Your task to perform on an android device: View the shopping cart on target.com. Add "logitech g502" to the cart on target.com, then select checkout. Image 0: 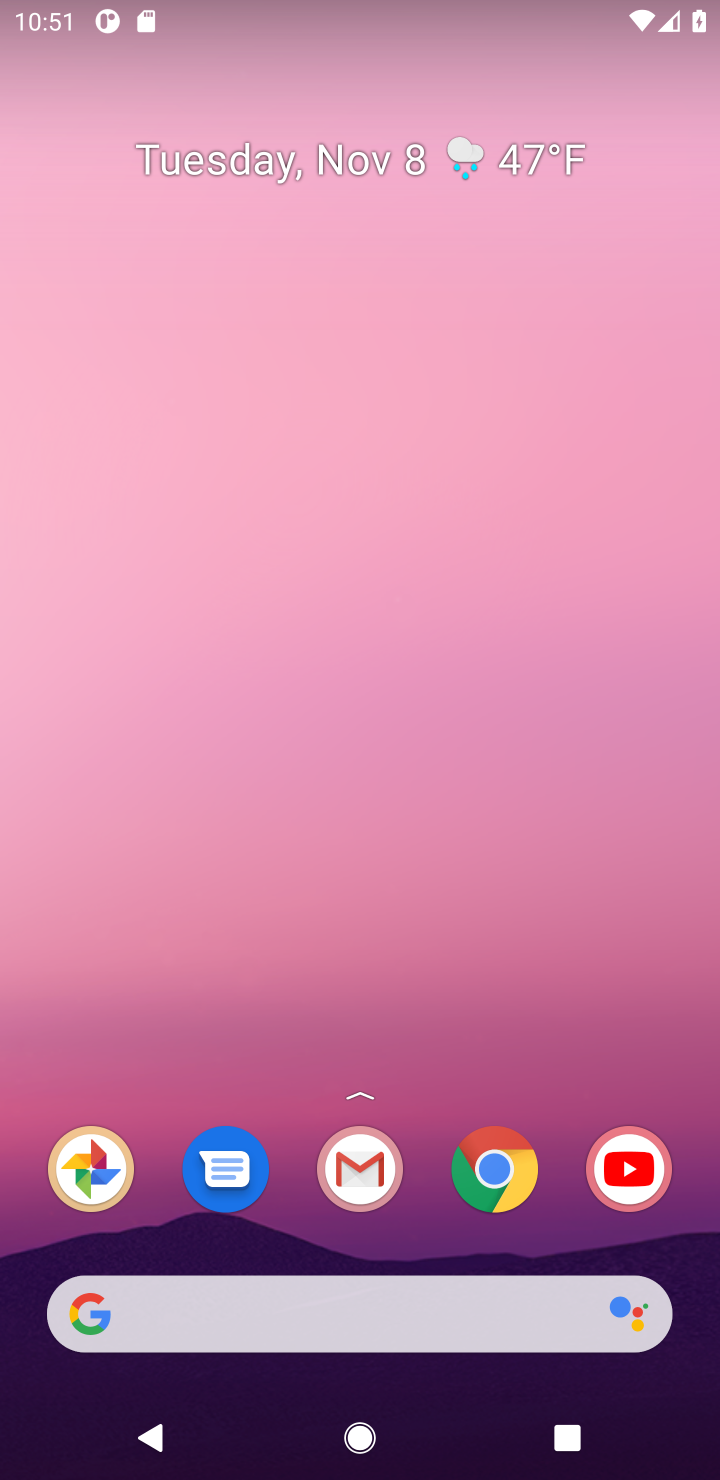
Step 0: click (511, 1176)
Your task to perform on an android device: View the shopping cart on target.com. Add "logitech g502" to the cart on target.com, then select checkout. Image 1: 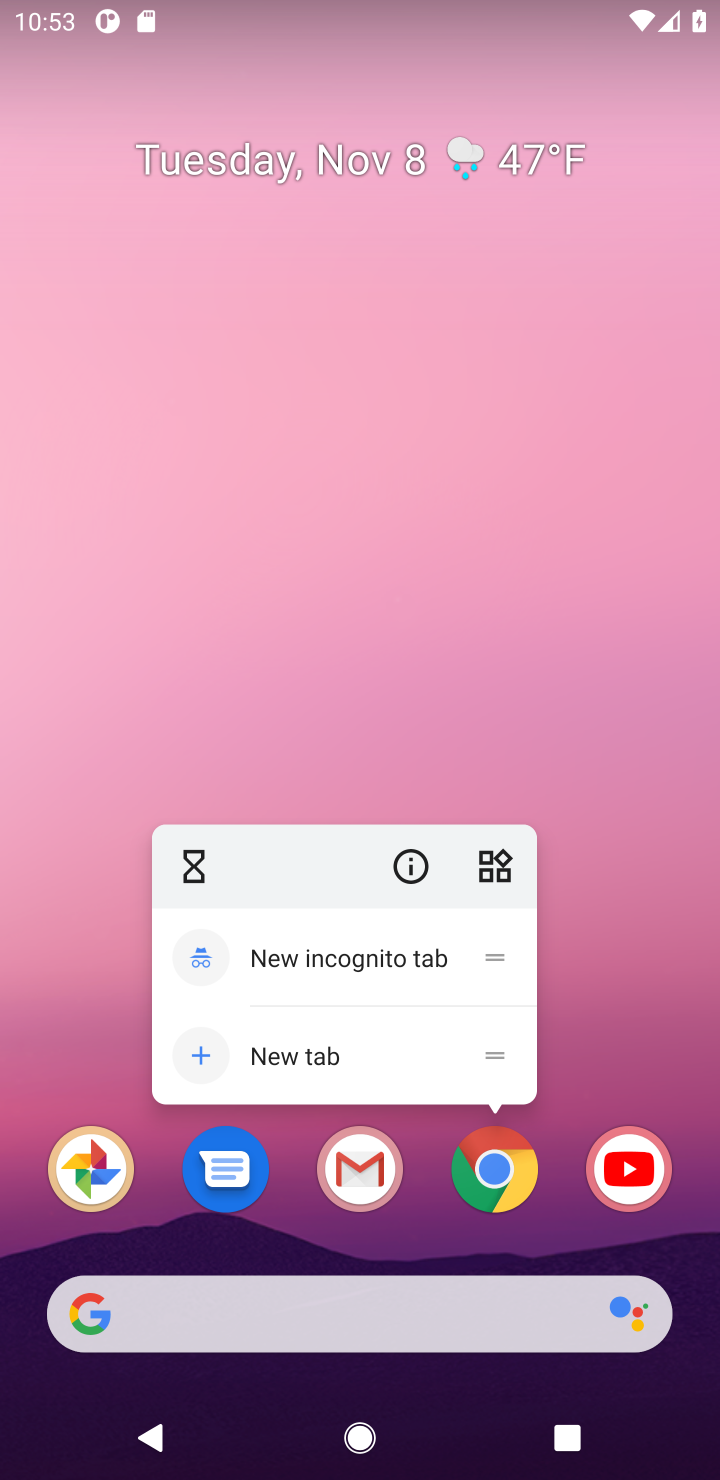
Step 1: click (511, 1176)
Your task to perform on an android device: View the shopping cart on target.com. Add "logitech g502" to the cart on target.com, then select checkout. Image 2: 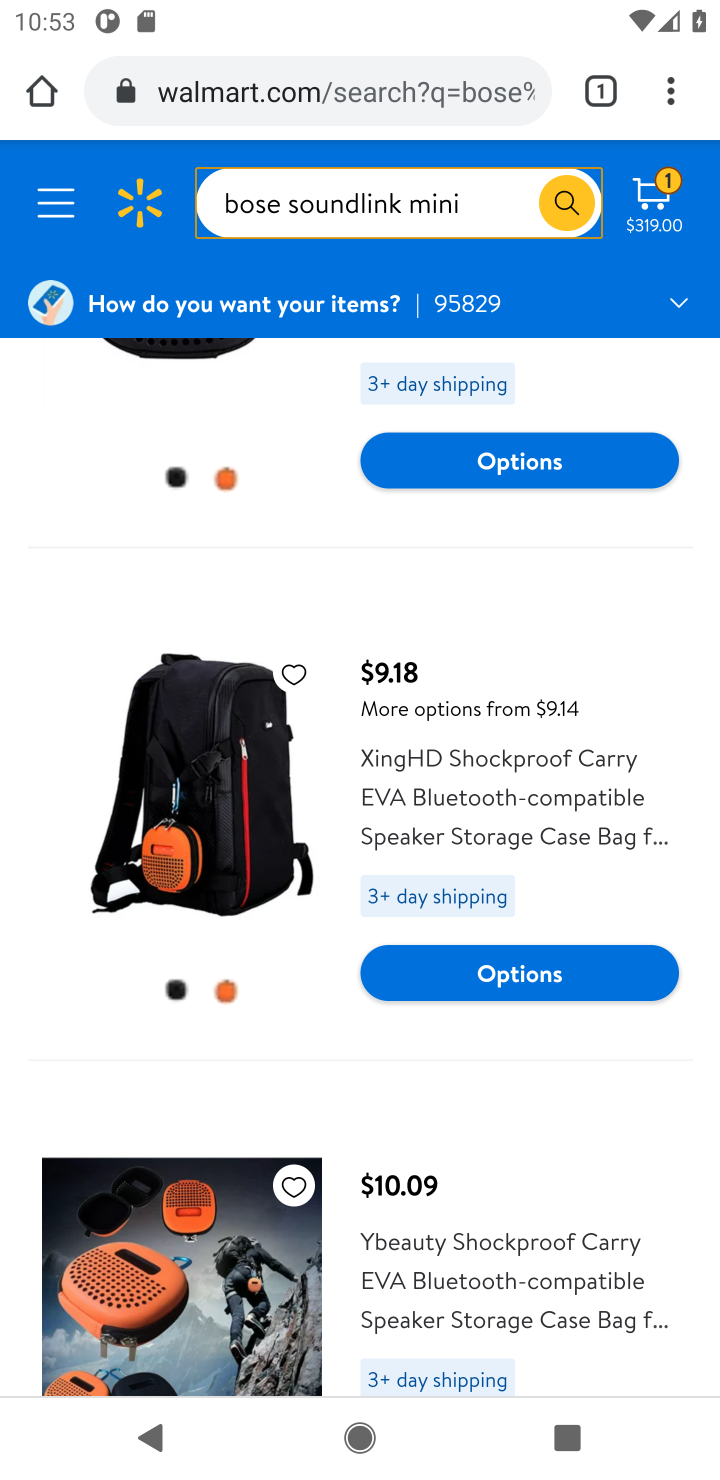
Step 2: click (363, 79)
Your task to perform on an android device: View the shopping cart on target.com. Add "logitech g502" to the cart on target.com, then select checkout. Image 3: 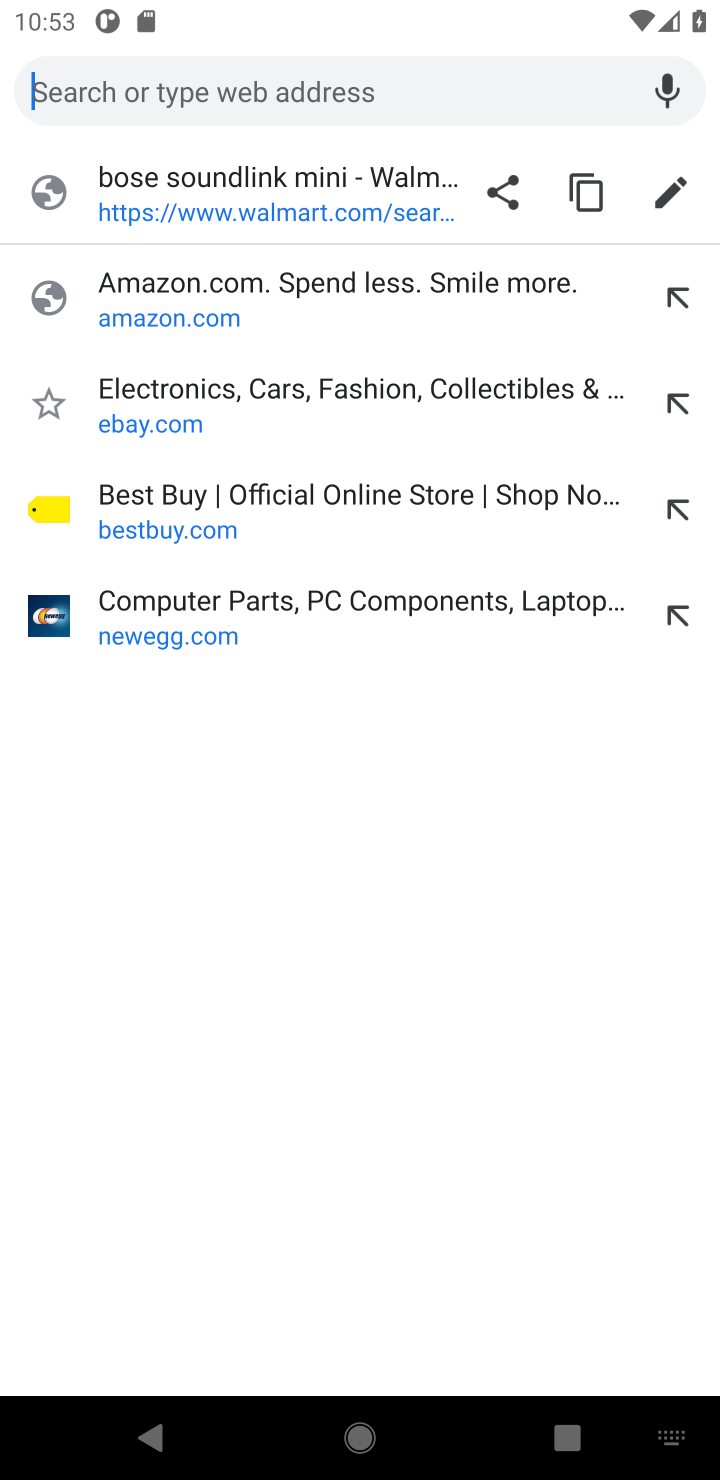
Step 3: type "target.com"
Your task to perform on an android device: View the shopping cart on target.com. Add "logitech g502" to the cart on target.com, then select checkout. Image 4: 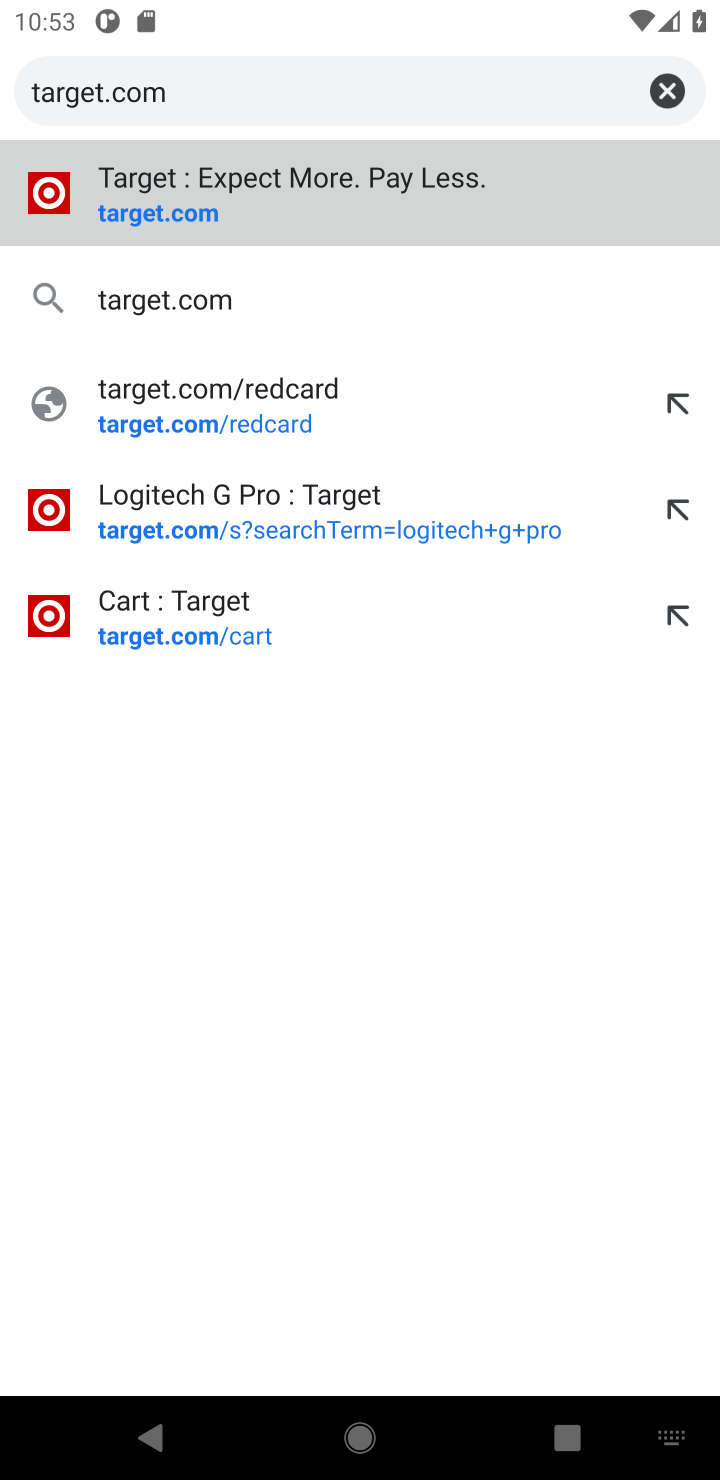
Step 4: click (189, 293)
Your task to perform on an android device: View the shopping cart on target.com. Add "logitech g502" to the cart on target.com, then select checkout. Image 5: 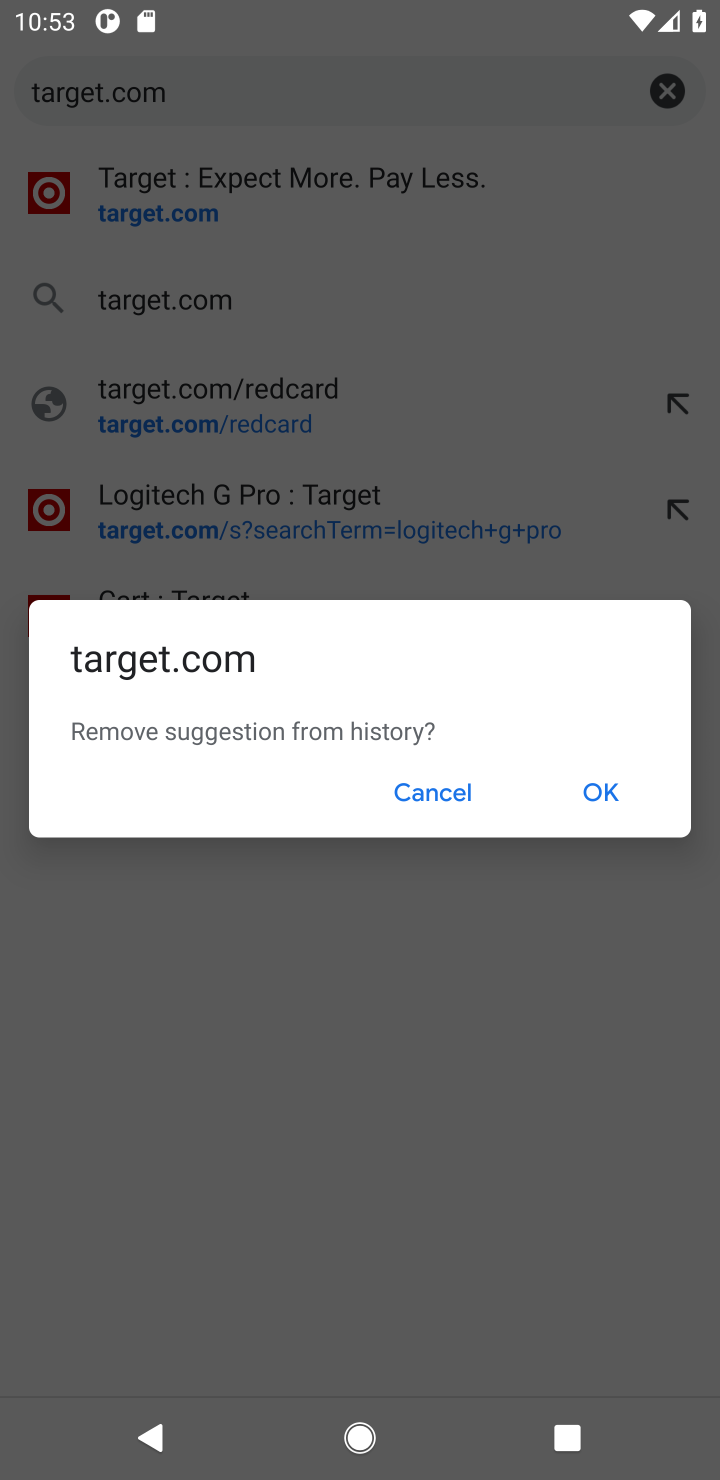
Step 5: click (629, 783)
Your task to perform on an android device: View the shopping cart on target.com. Add "logitech g502" to the cart on target.com, then select checkout. Image 6: 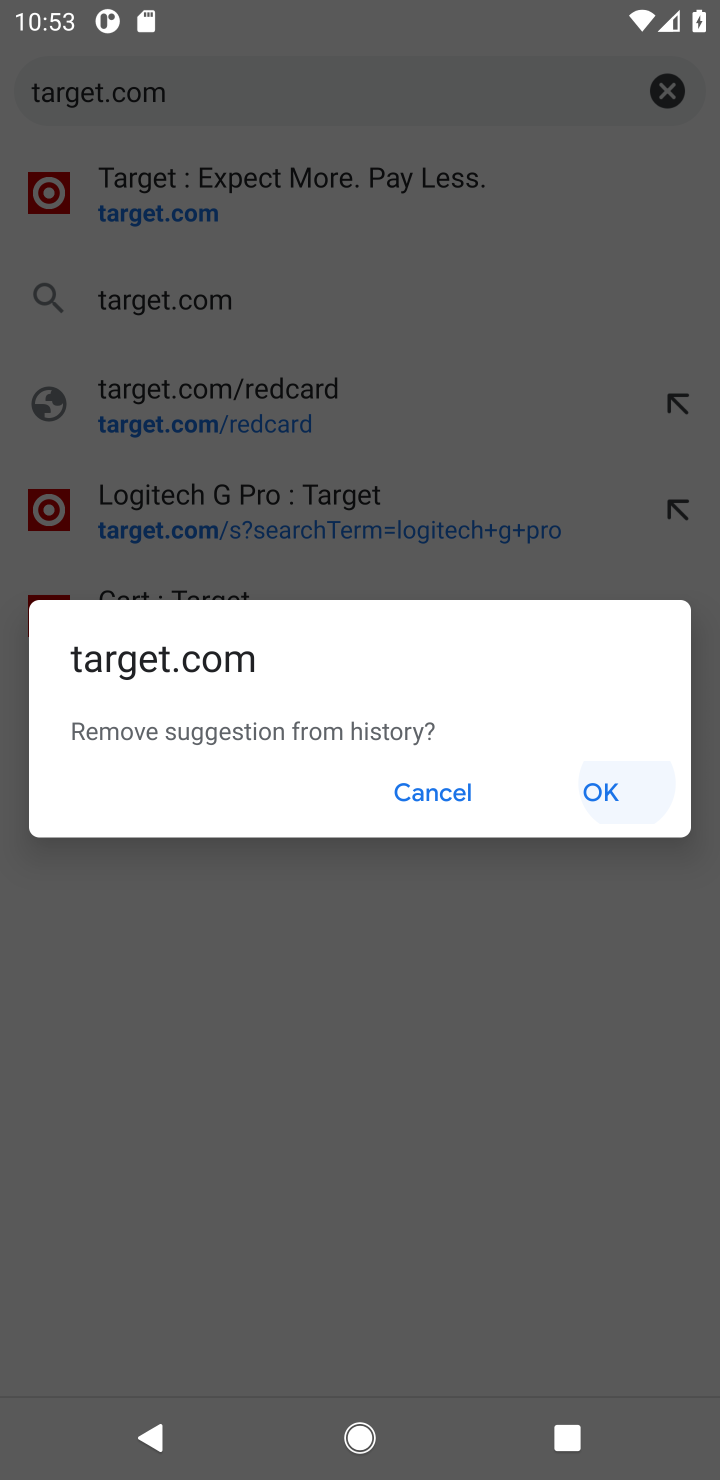
Step 6: click (608, 789)
Your task to perform on an android device: View the shopping cart on target.com. Add "logitech g502" to the cart on target.com, then select checkout. Image 7: 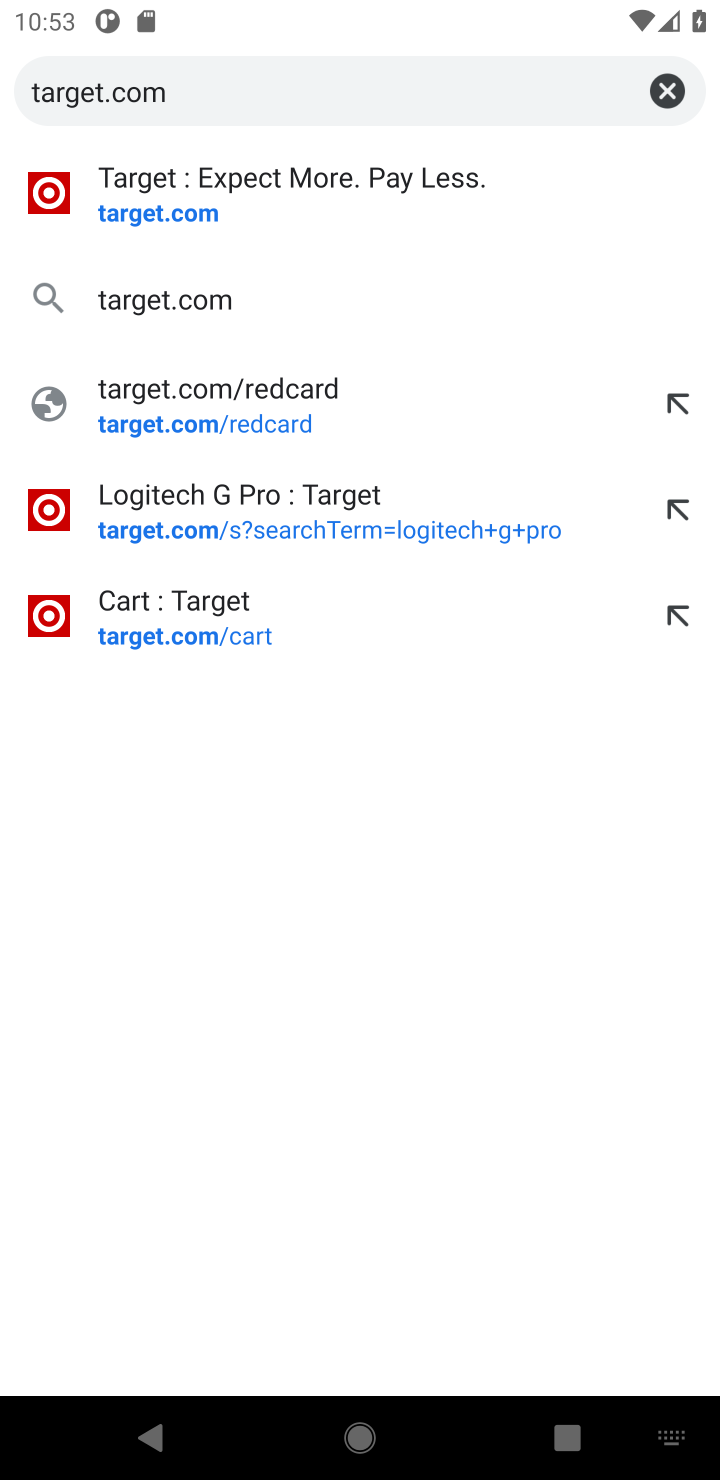
Step 7: click (454, 79)
Your task to perform on an android device: View the shopping cart on target.com. Add "logitech g502" to the cart on target.com, then select checkout. Image 8: 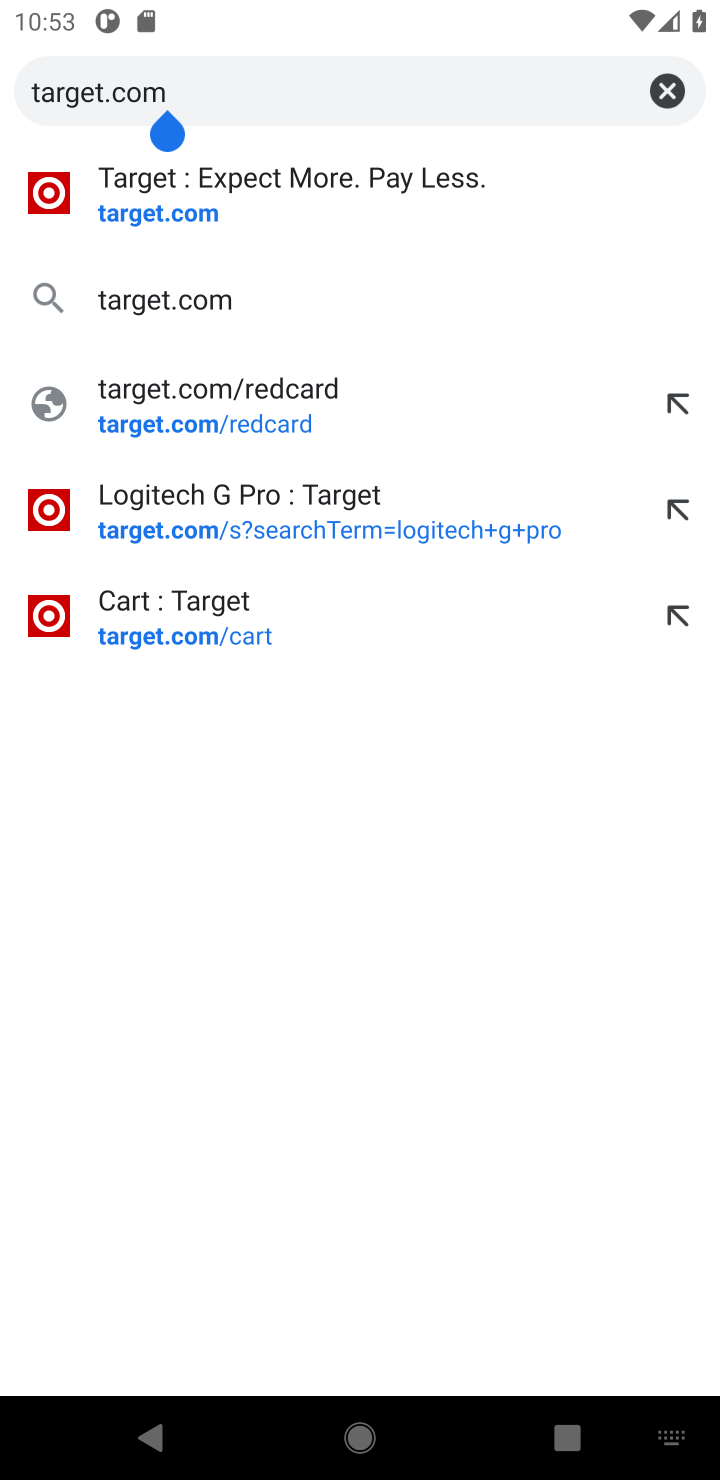
Step 8: click (166, 306)
Your task to perform on an android device: View the shopping cart on target.com. Add "logitech g502" to the cart on target.com, then select checkout. Image 9: 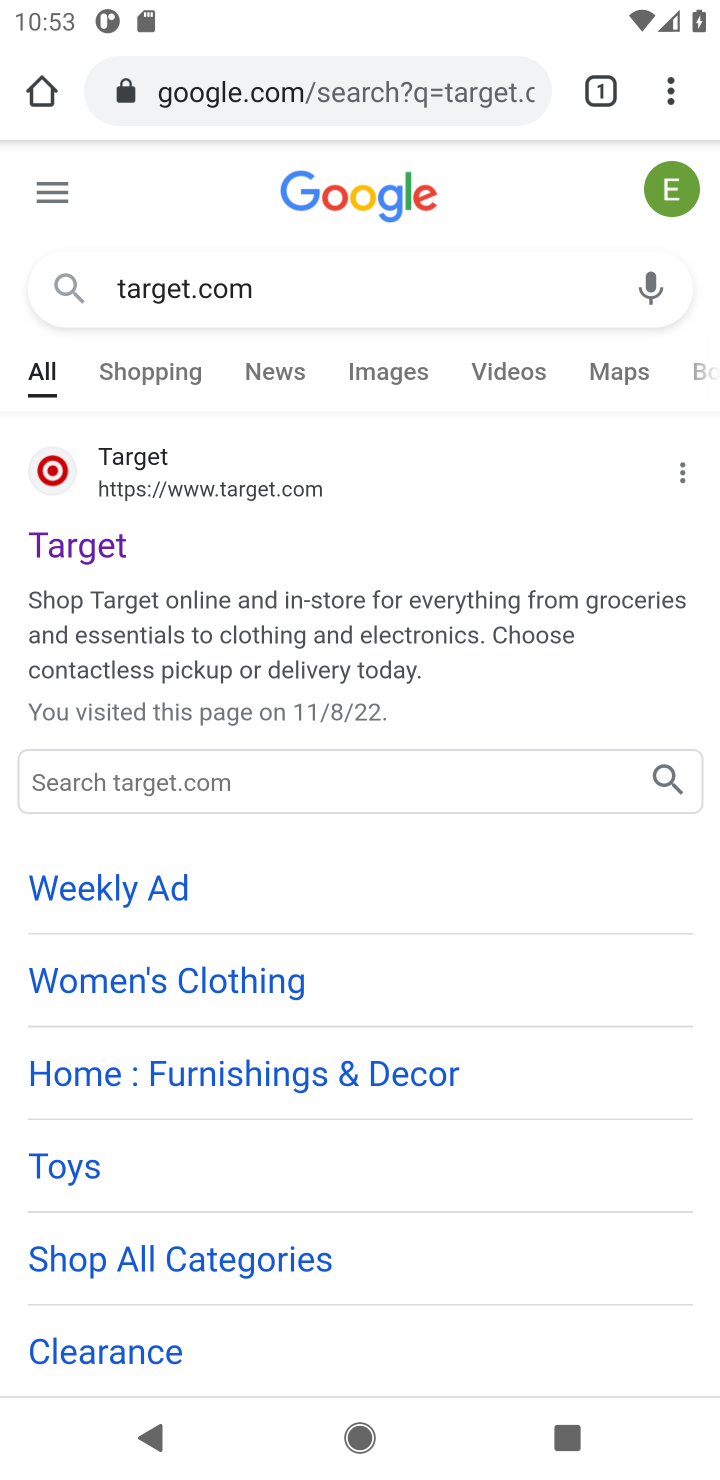
Step 9: click (219, 485)
Your task to perform on an android device: View the shopping cart on target.com. Add "logitech g502" to the cart on target.com, then select checkout. Image 10: 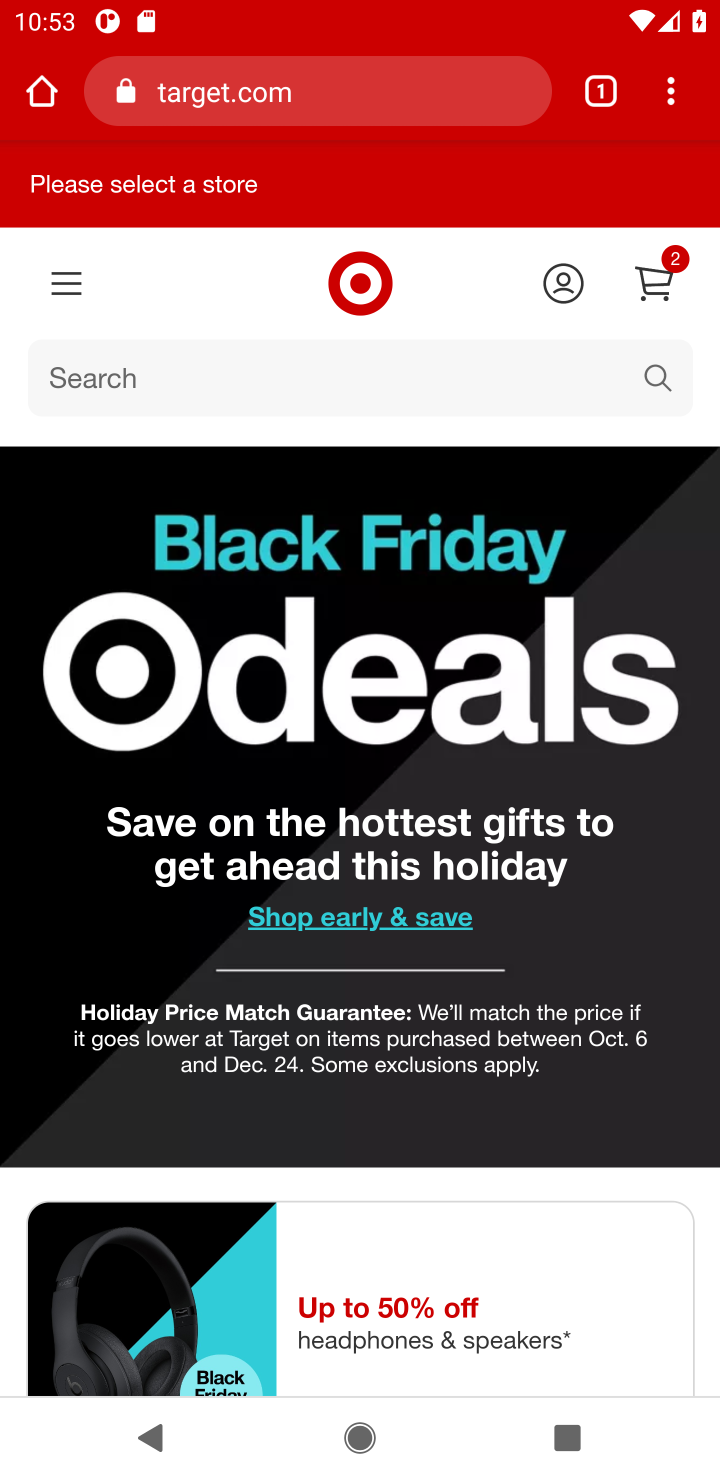
Step 10: click (657, 370)
Your task to perform on an android device: View the shopping cart on target.com. Add "logitech g502" to the cart on target.com, then select checkout. Image 11: 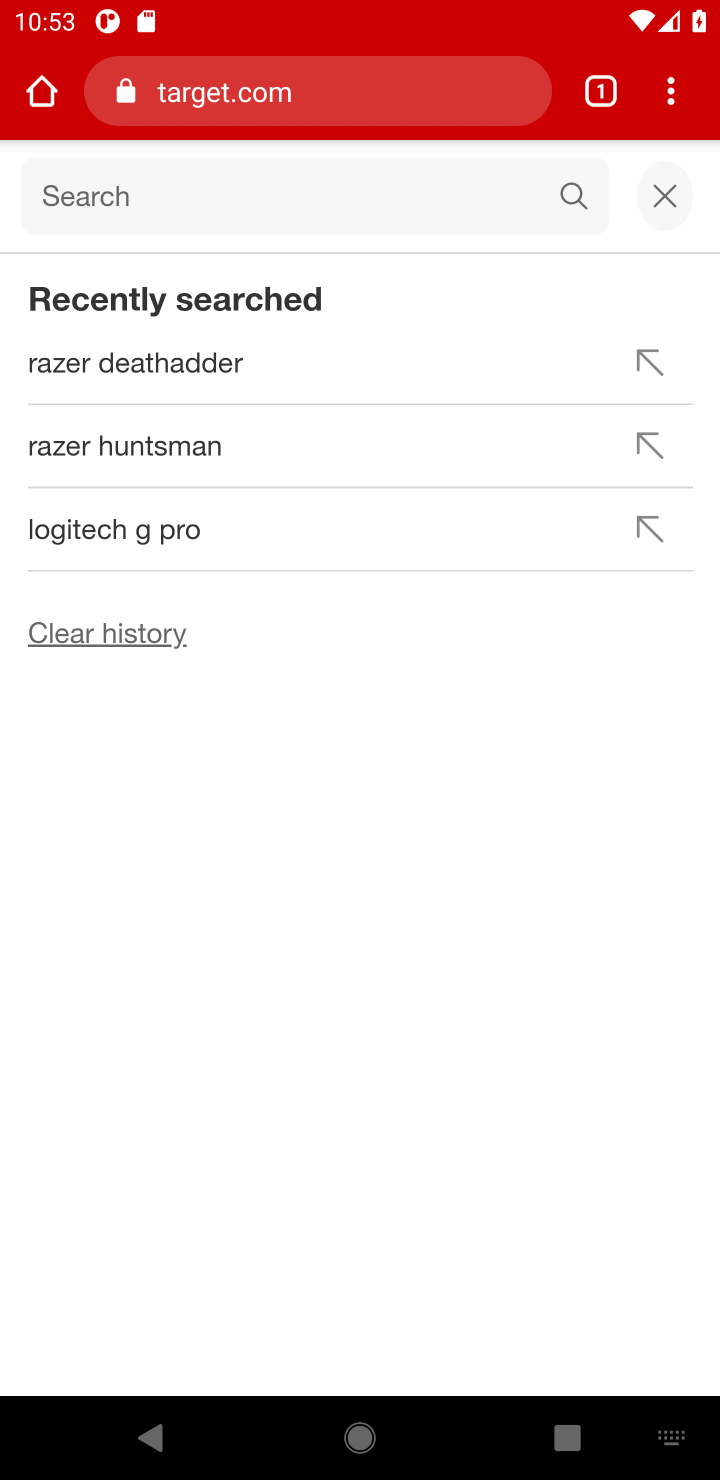
Step 11: type "logitech g502"
Your task to perform on an android device: View the shopping cart on target.com. Add "logitech g502" to the cart on target.com, then select checkout. Image 12: 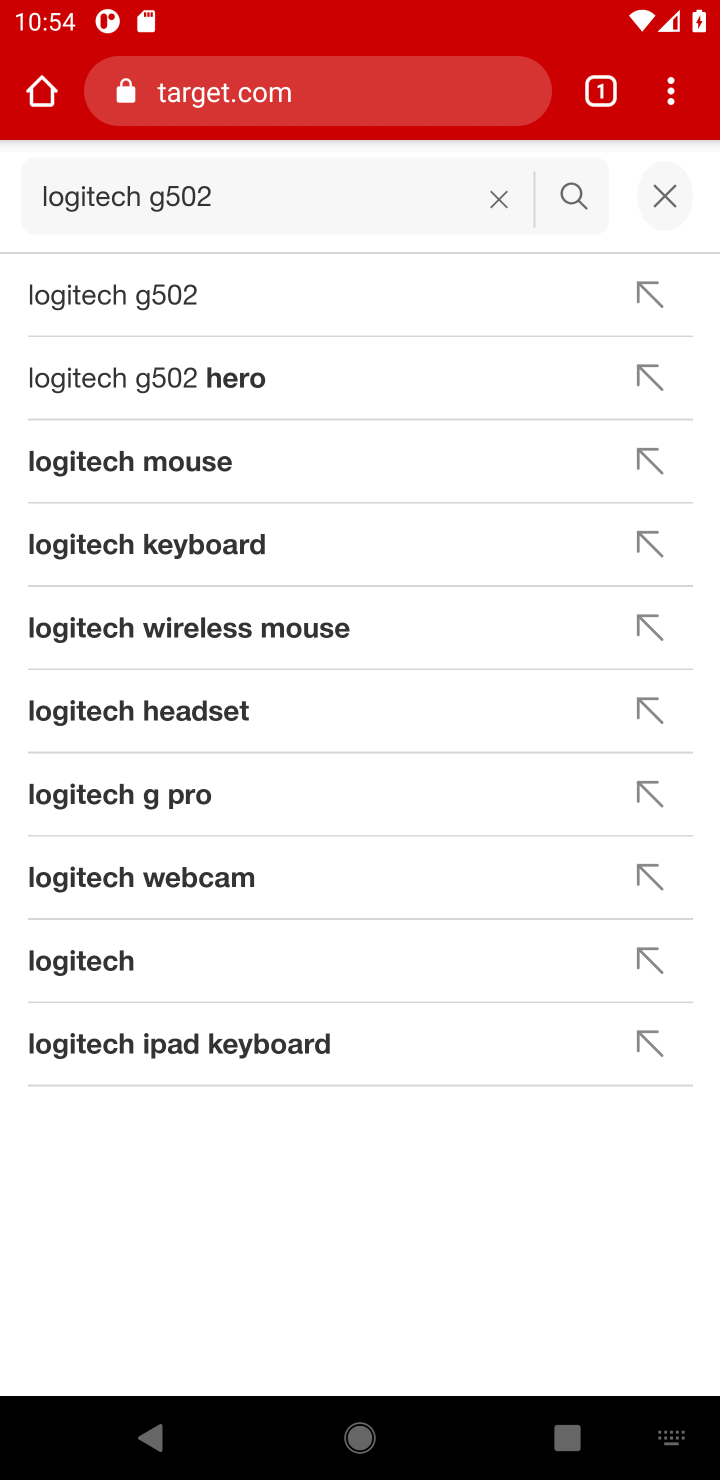
Step 12: click (103, 299)
Your task to perform on an android device: View the shopping cart on target.com. Add "logitech g502" to the cart on target.com, then select checkout. Image 13: 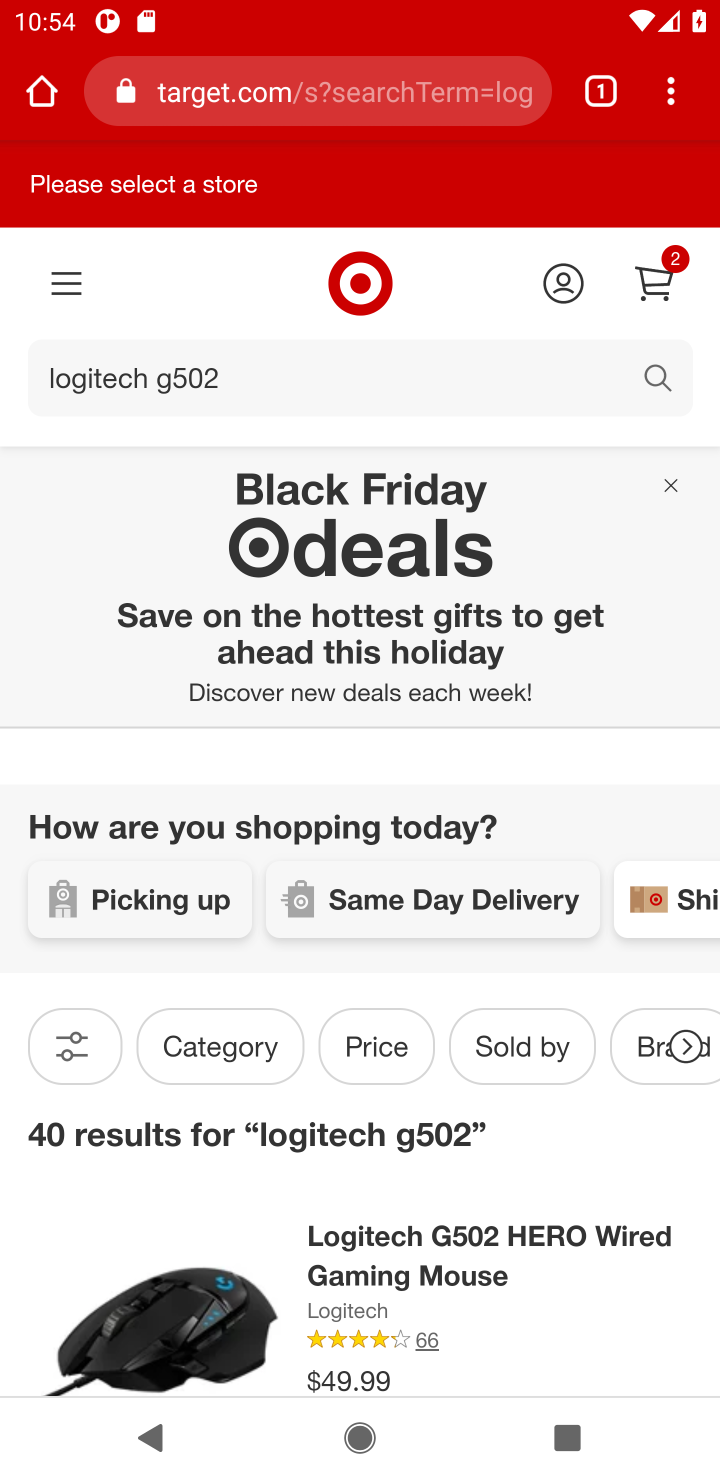
Step 13: drag from (619, 1285) to (656, 1012)
Your task to perform on an android device: View the shopping cart on target.com. Add "logitech g502" to the cart on target.com, then select checkout. Image 14: 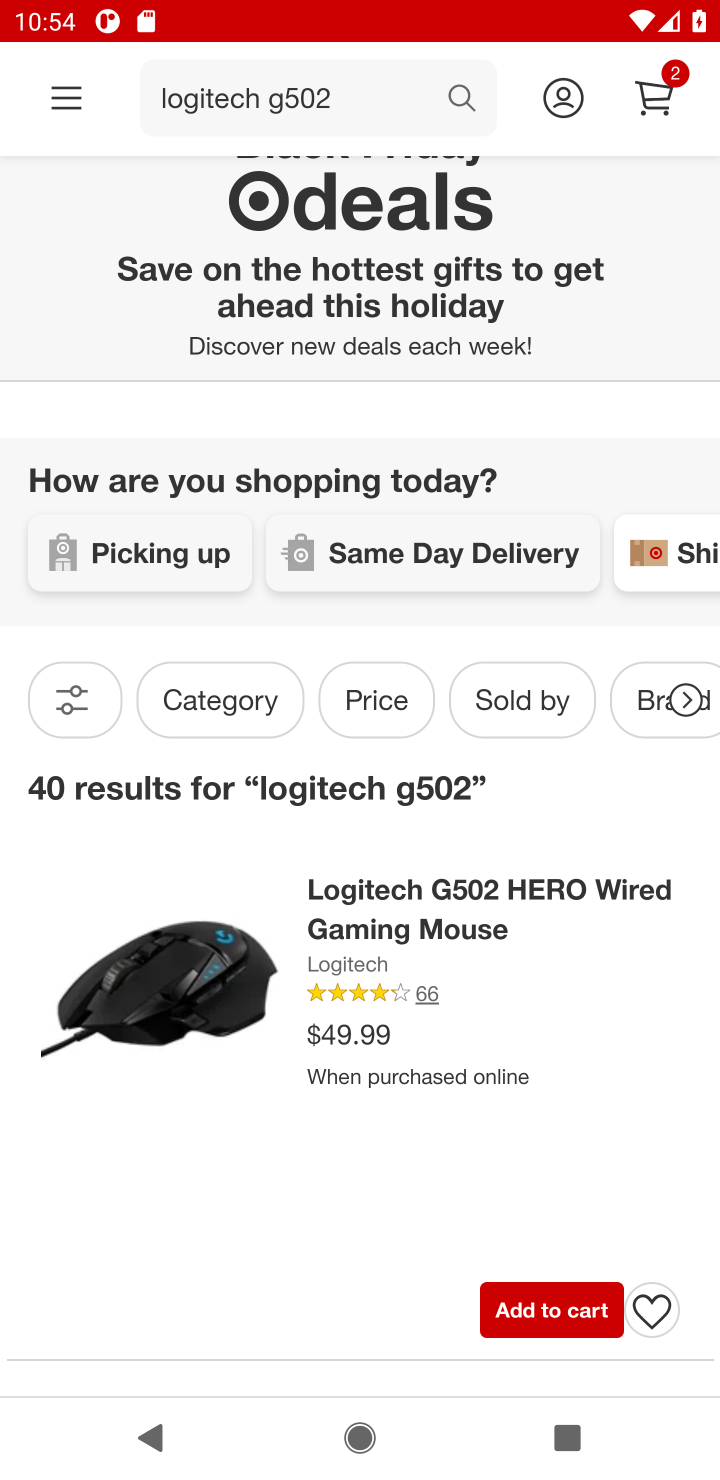
Step 14: click (179, 982)
Your task to perform on an android device: View the shopping cart on target.com. Add "logitech g502" to the cart on target.com, then select checkout. Image 15: 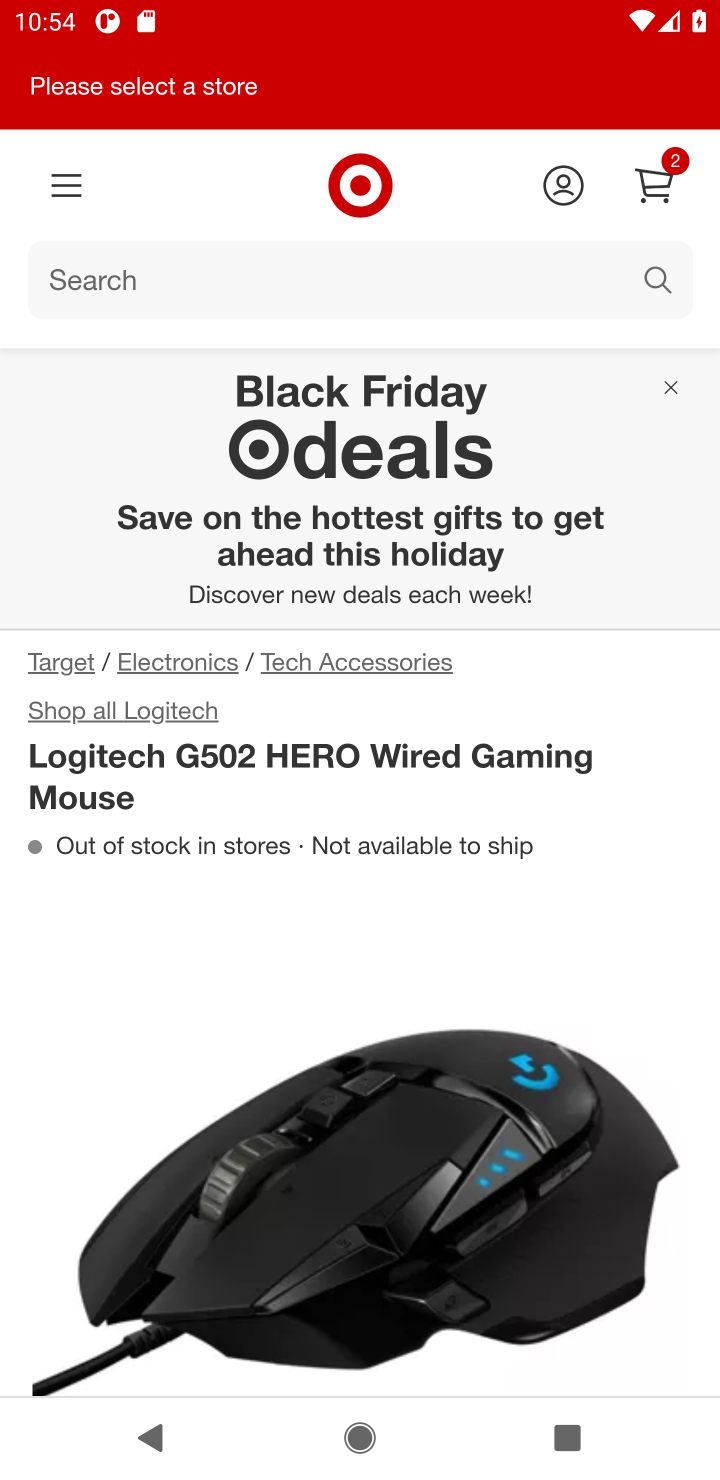
Step 15: drag from (507, 990) to (526, 106)
Your task to perform on an android device: View the shopping cart on target.com. Add "logitech g502" to the cart on target.com, then select checkout. Image 16: 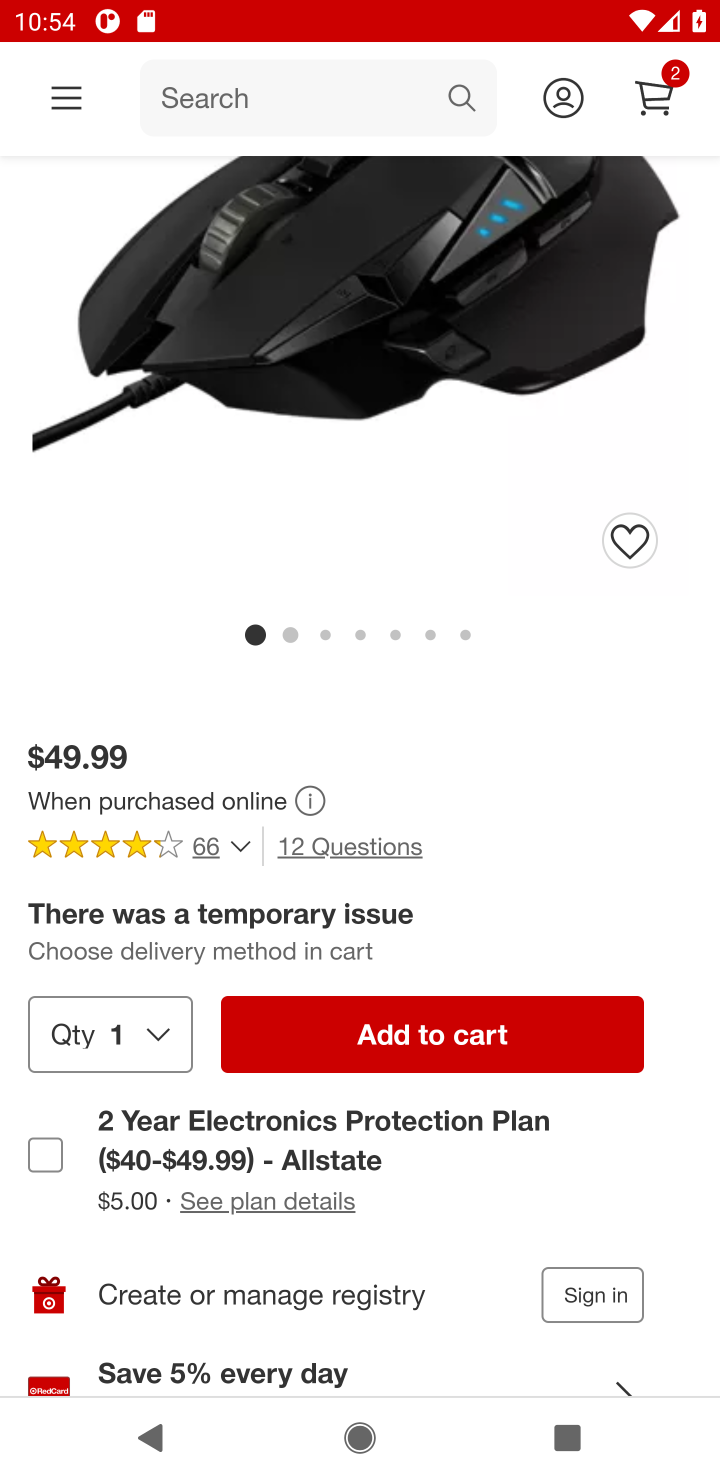
Step 16: click (511, 1030)
Your task to perform on an android device: View the shopping cart on target.com. Add "logitech g502" to the cart on target.com, then select checkout. Image 17: 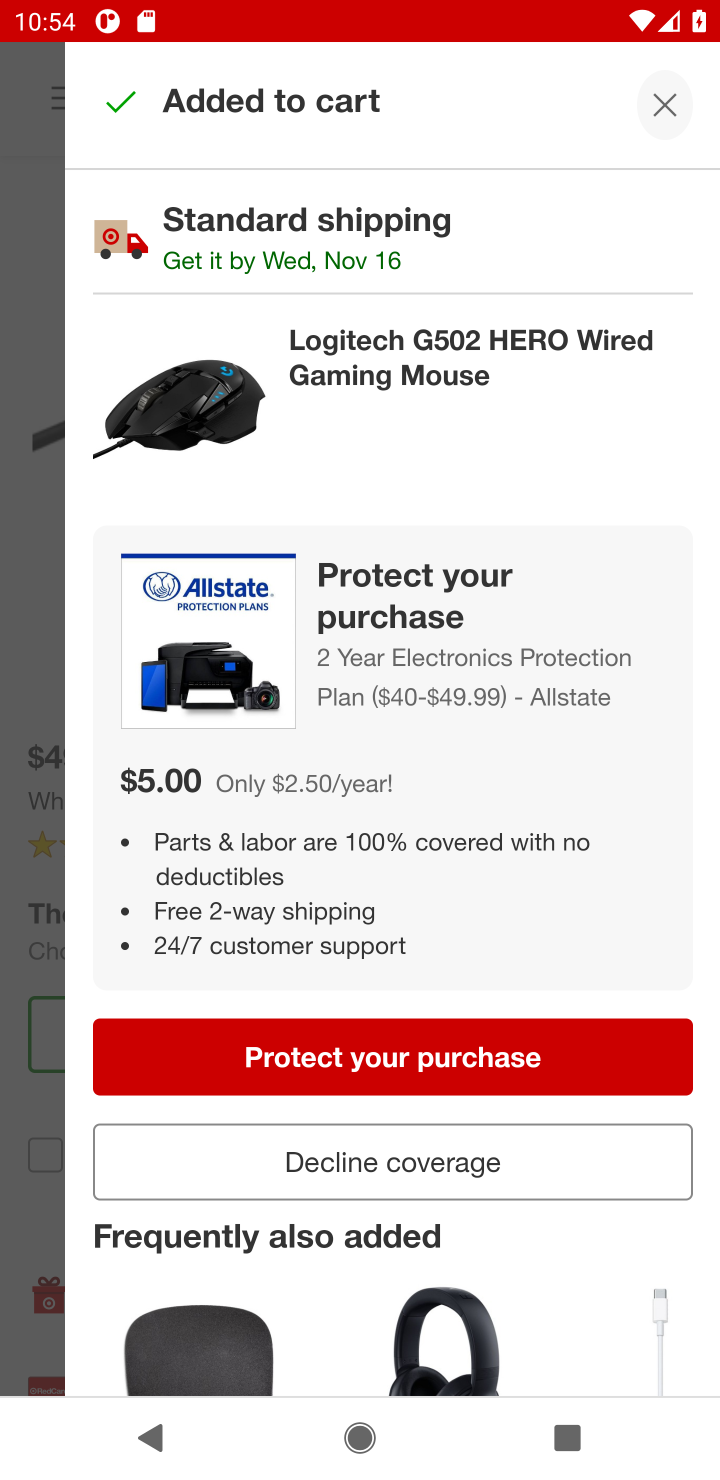
Step 17: click (649, 98)
Your task to perform on an android device: View the shopping cart on target.com. Add "logitech g502" to the cart on target.com, then select checkout. Image 18: 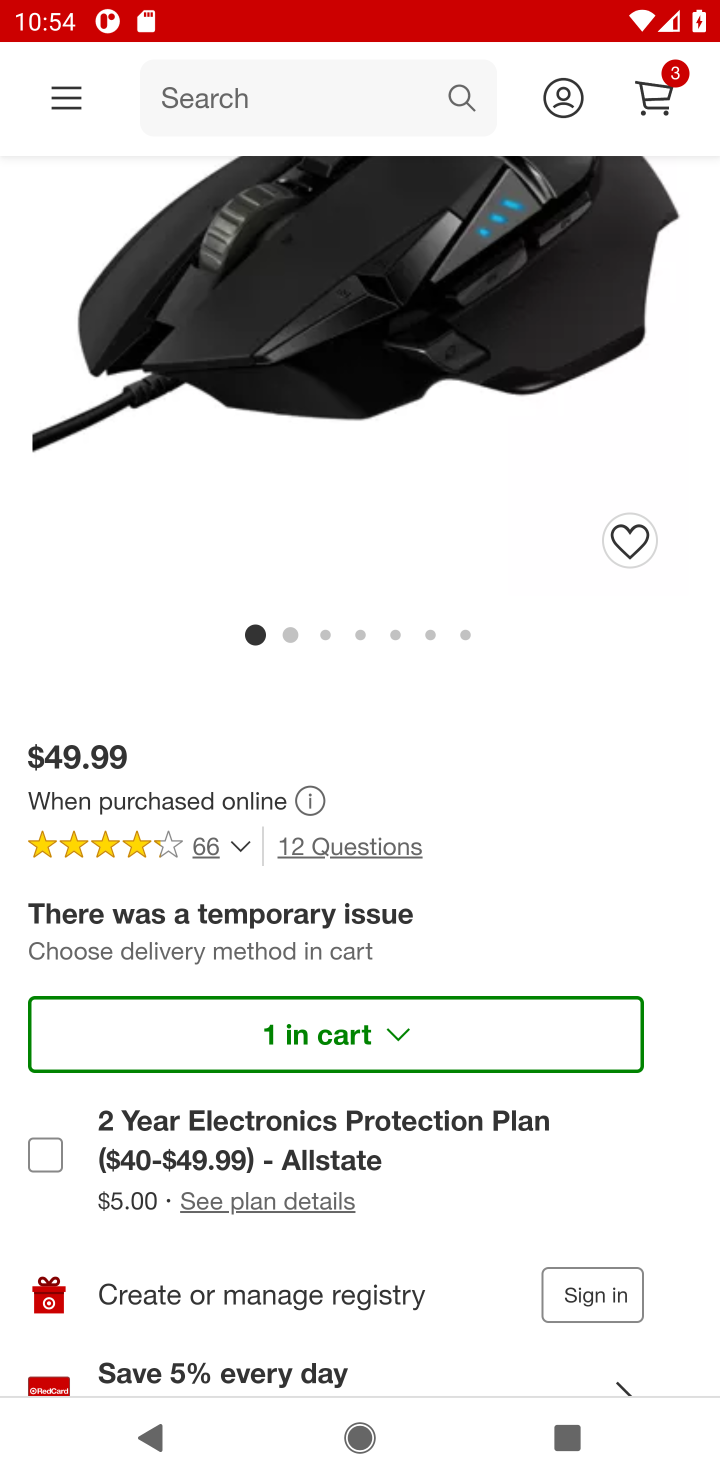
Step 18: drag from (528, 1111) to (466, 1279)
Your task to perform on an android device: View the shopping cart on target.com. Add "logitech g502" to the cart on target.com, then select checkout. Image 19: 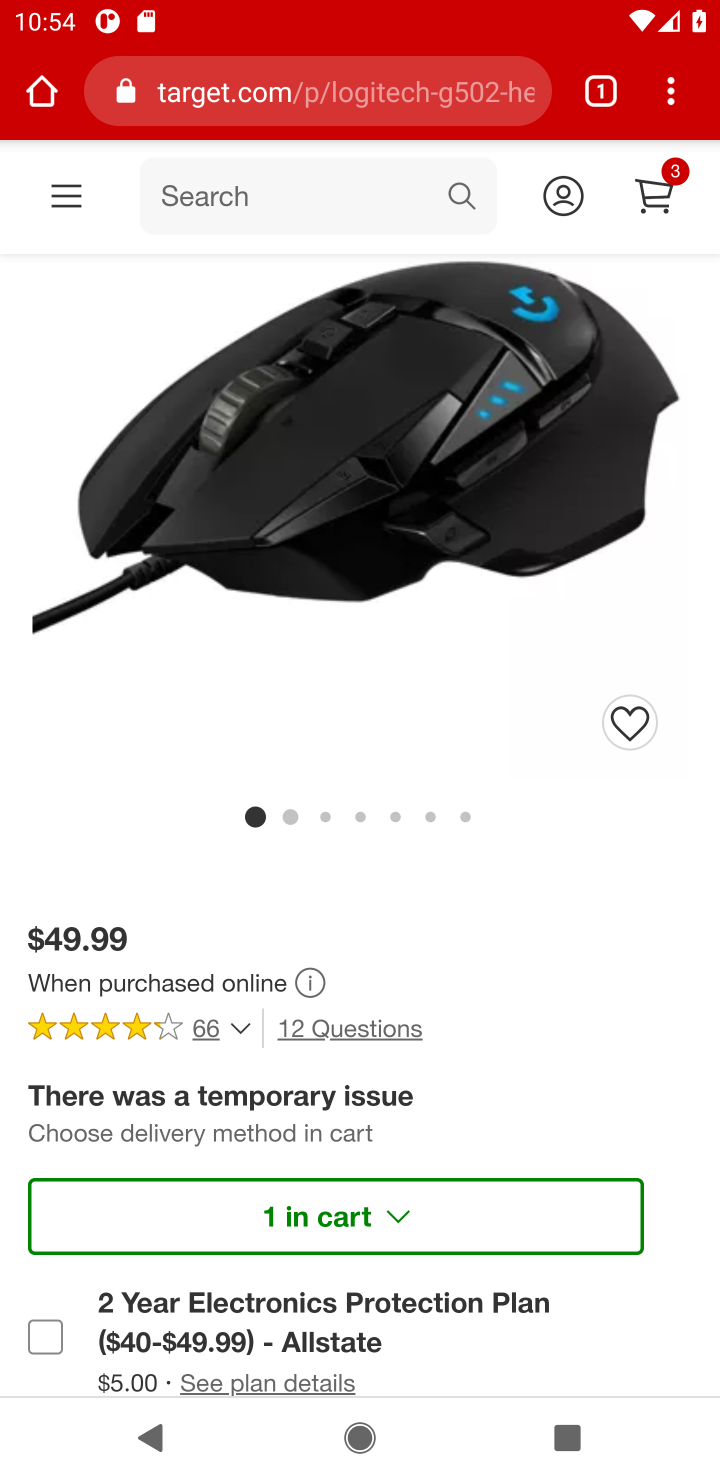
Step 19: click (651, 187)
Your task to perform on an android device: View the shopping cart on target.com. Add "logitech g502" to the cart on target.com, then select checkout. Image 20: 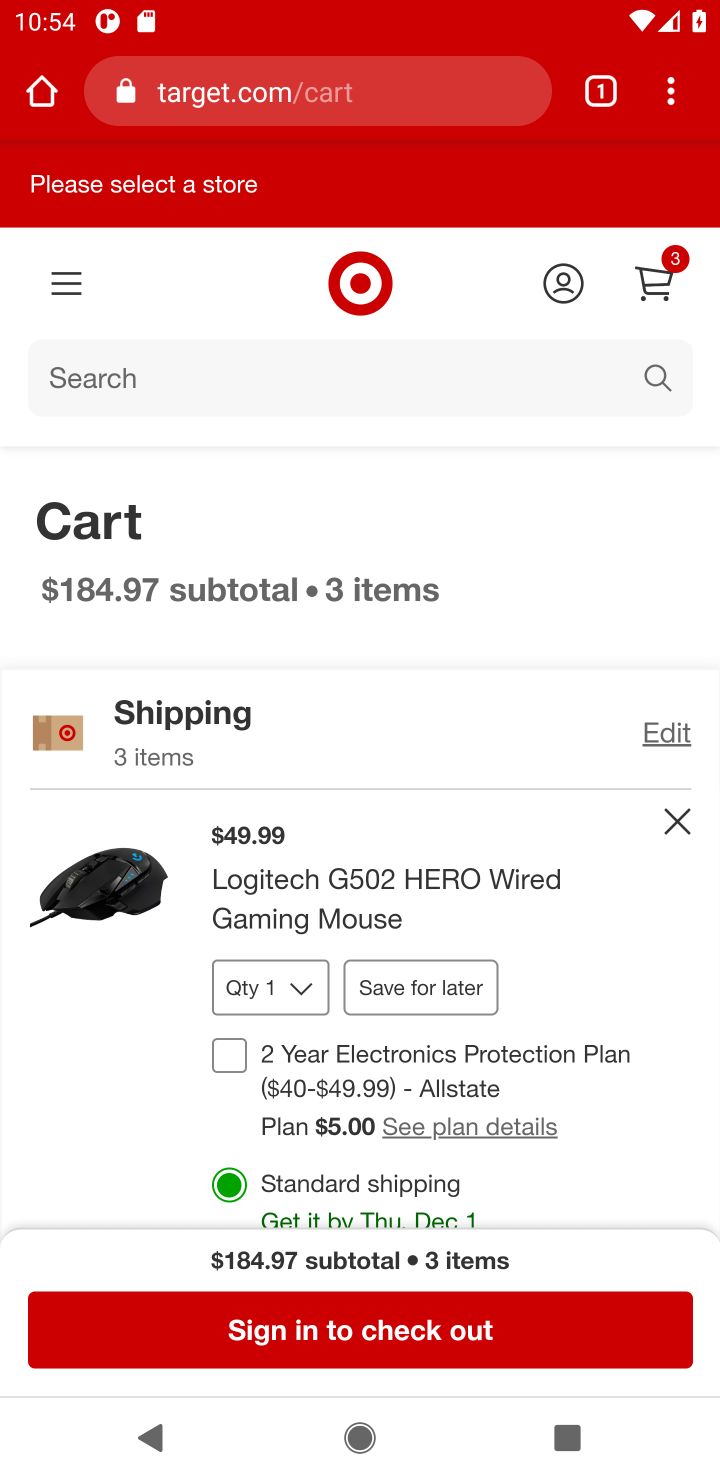
Step 20: click (387, 1308)
Your task to perform on an android device: View the shopping cart on target.com. Add "logitech g502" to the cart on target.com, then select checkout. Image 21: 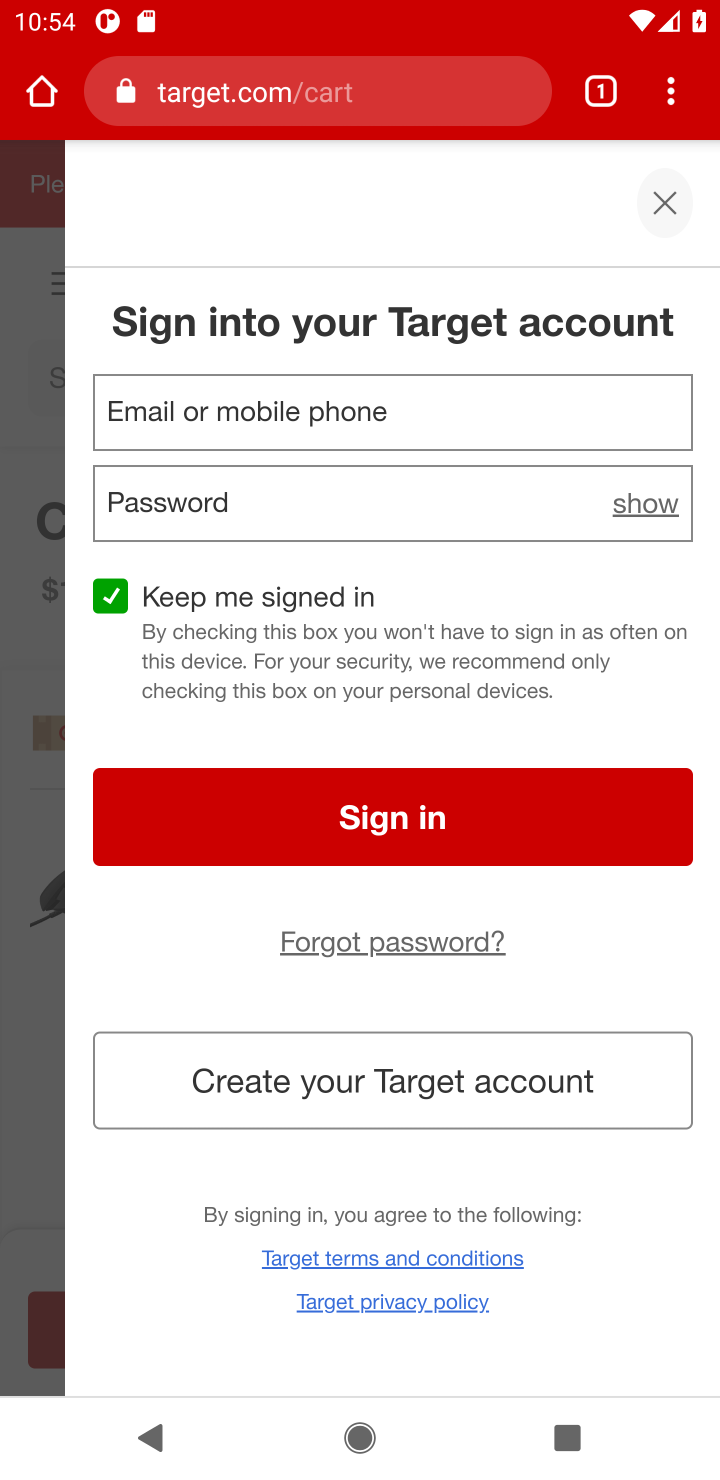
Step 21: task complete